Your task to perform on an android device: change keyboard looks Image 0: 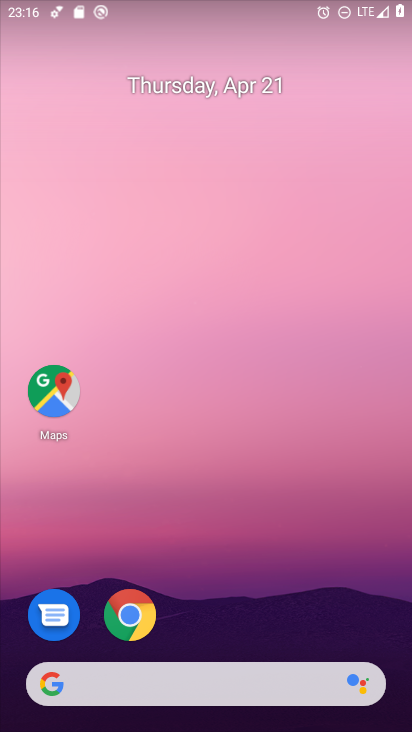
Step 0: drag from (199, 636) to (226, 128)
Your task to perform on an android device: change keyboard looks Image 1: 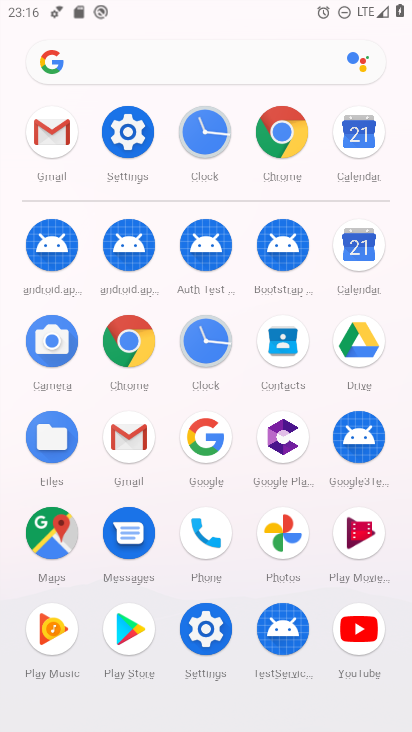
Step 1: click (205, 623)
Your task to perform on an android device: change keyboard looks Image 2: 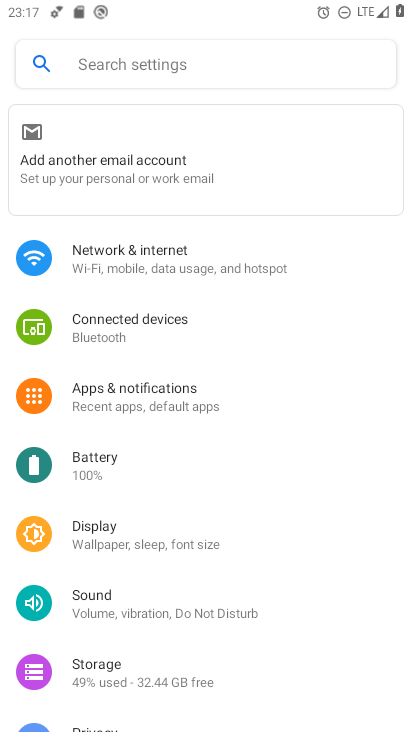
Step 2: drag from (162, 677) to (217, 18)
Your task to perform on an android device: change keyboard looks Image 3: 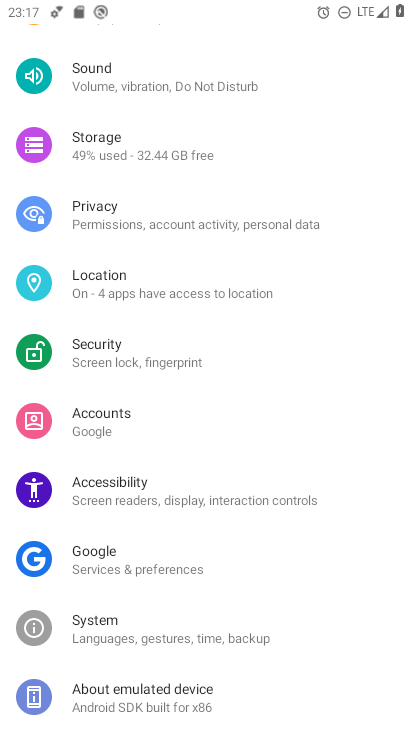
Step 3: click (129, 629)
Your task to perform on an android device: change keyboard looks Image 4: 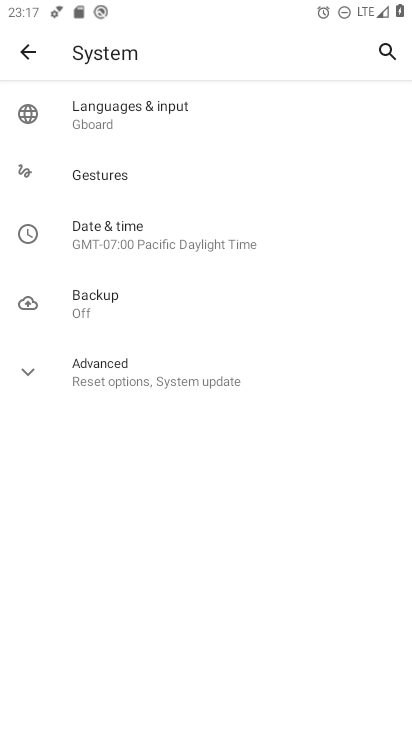
Step 4: click (144, 115)
Your task to perform on an android device: change keyboard looks Image 5: 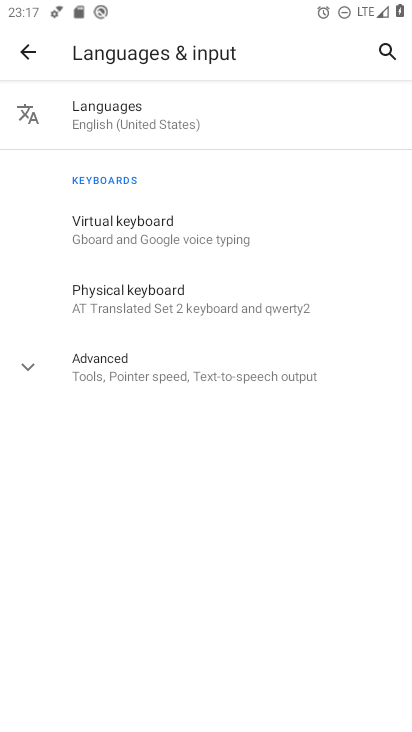
Step 5: click (174, 223)
Your task to perform on an android device: change keyboard looks Image 6: 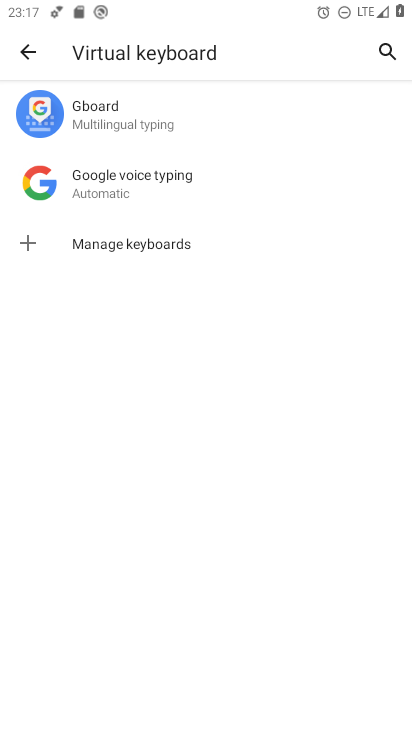
Step 6: click (147, 115)
Your task to perform on an android device: change keyboard looks Image 7: 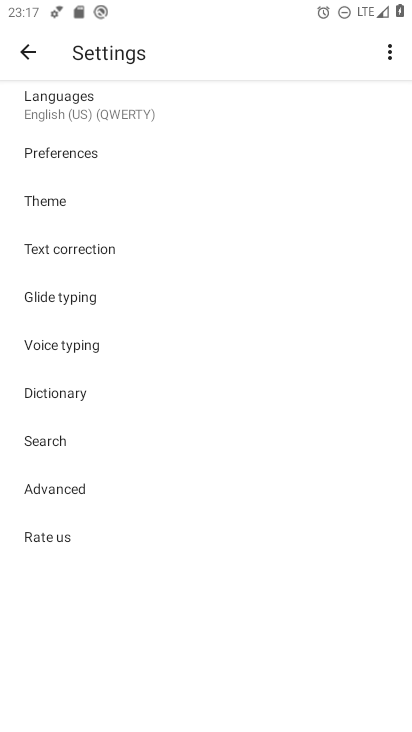
Step 7: click (70, 197)
Your task to perform on an android device: change keyboard looks Image 8: 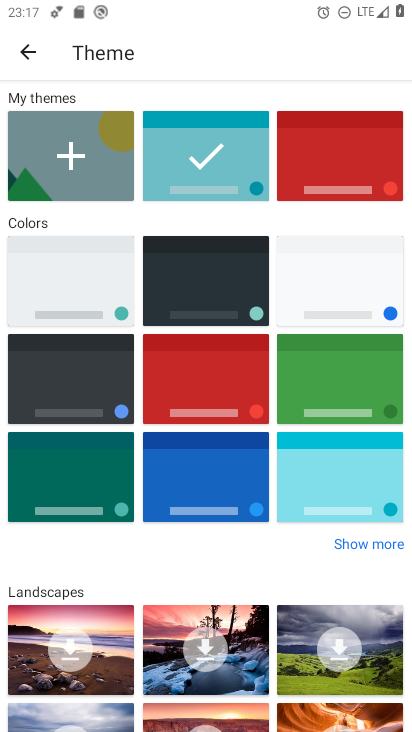
Step 8: click (187, 489)
Your task to perform on an android device: change keyboard looks Image 9: 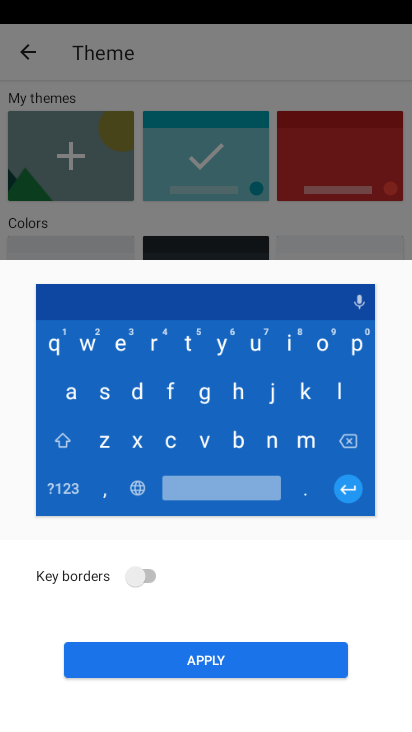
Step 9: click (202, 658)
Your task to perform on an android device: change keyboard looks Image 10: 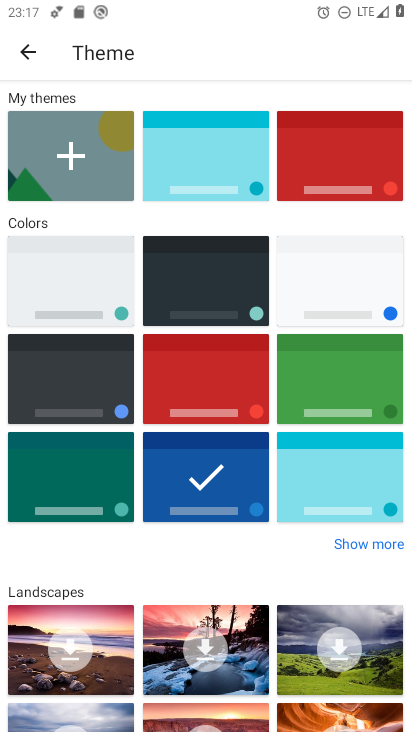
Step 10: task complete